Your task to perform on an android device: Open settings Image 0: 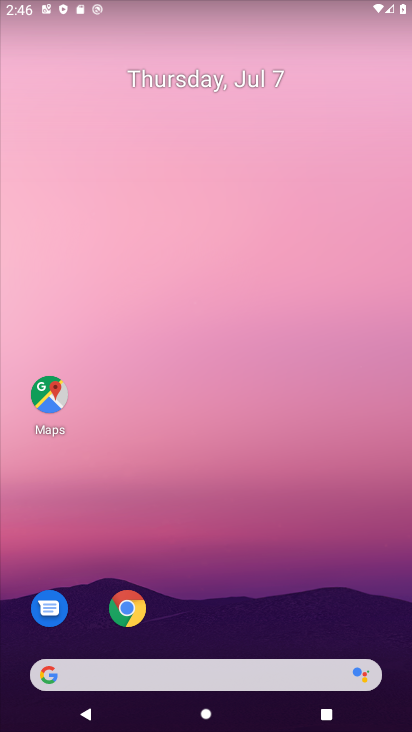
Step 0: drag from (399, 677) to (327, 20)
Your task to perform on an android device: Open settings Image 1: 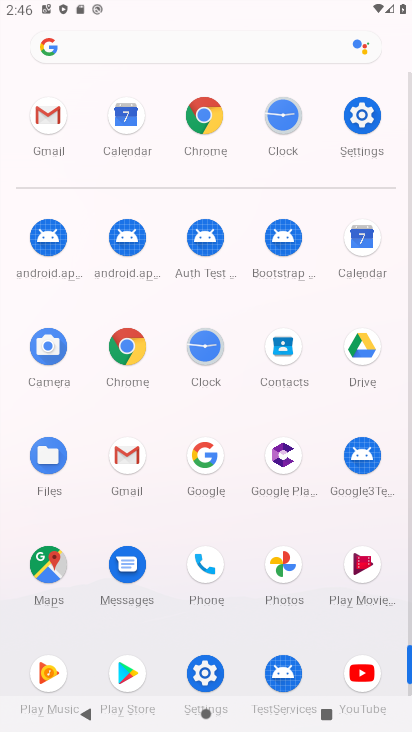
Step 1: click (410, 624)
Your task to perform on an android device: Open settings Image 2: 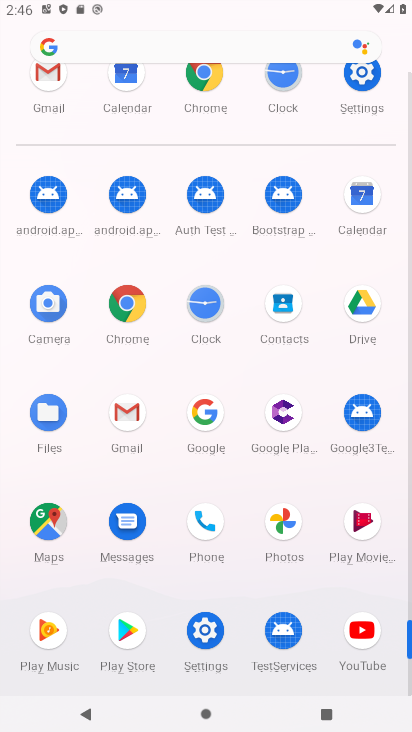
Step 2: click (205, 634)
Your task to perform on an android device: Open settings Image 3: 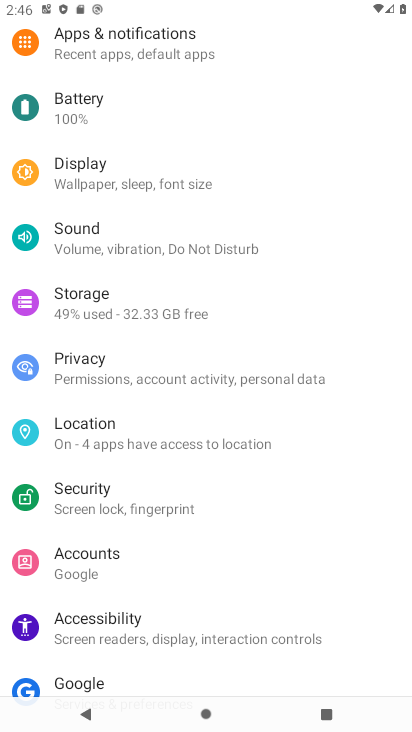
Step 3: task complete